Your task to perform on an android device: toggle javascript in the chrome app Image 0: 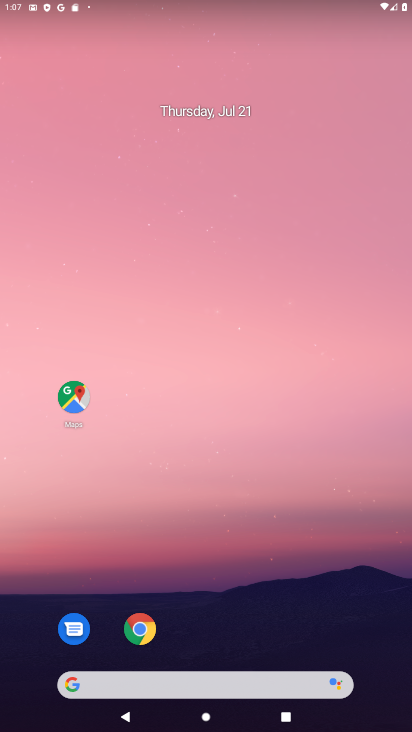
Step 0: click (145, 630)
Your task to perform on an android device: toggle javascript in the chrome app Image 1: 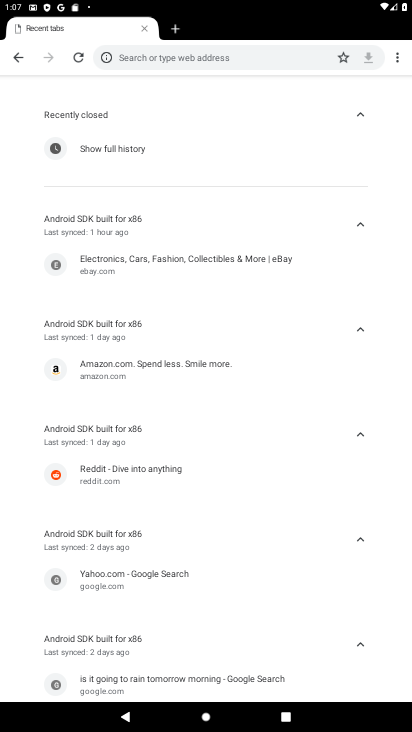
Step 1: click (393, 60)
Your task to perform on an android device: toggle javascript in the chrome app Image 2: 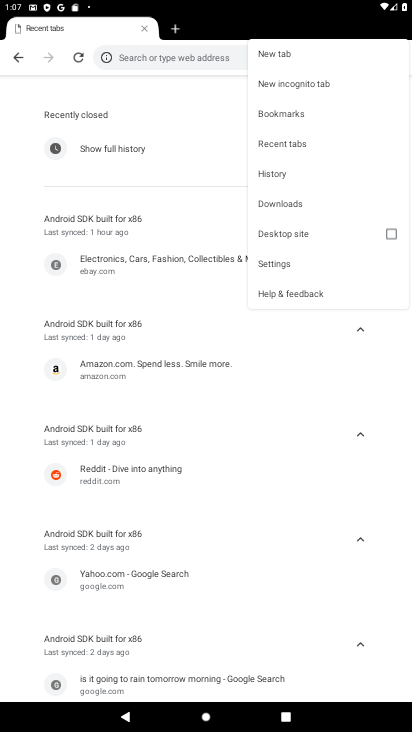
Step 2: click (284, 257)
Your task to perform on an android device: toggle javascript in the chrome app Image 3: 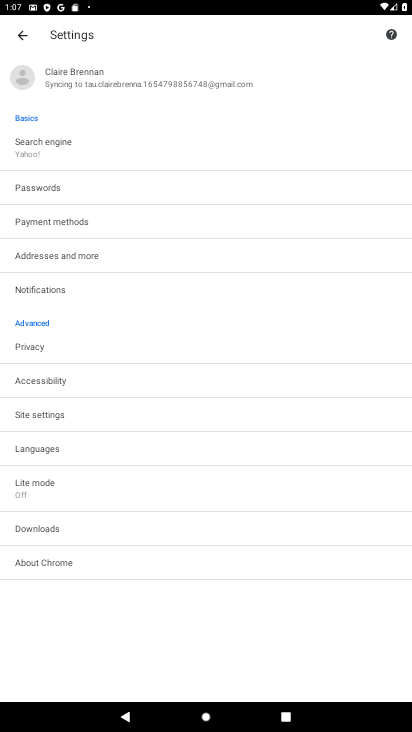
Step 3: click (46, 419)
Your task to perform on an android device: toggle javascript in the chrome app Image 4: 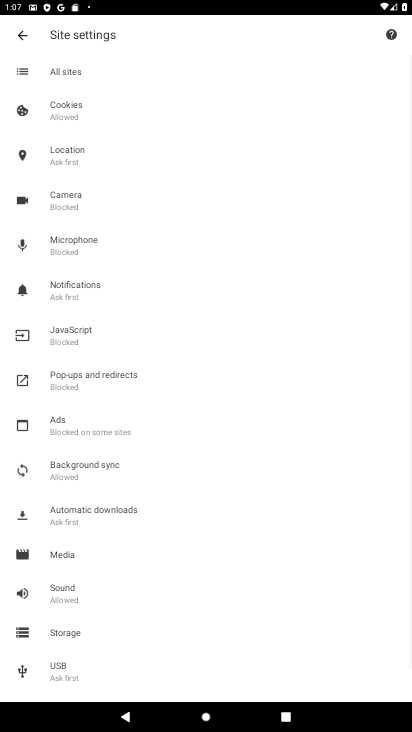
Step 4: click (101, 341)
Your task to perform on an android device: toggle javascript in the chrome app Image 5: 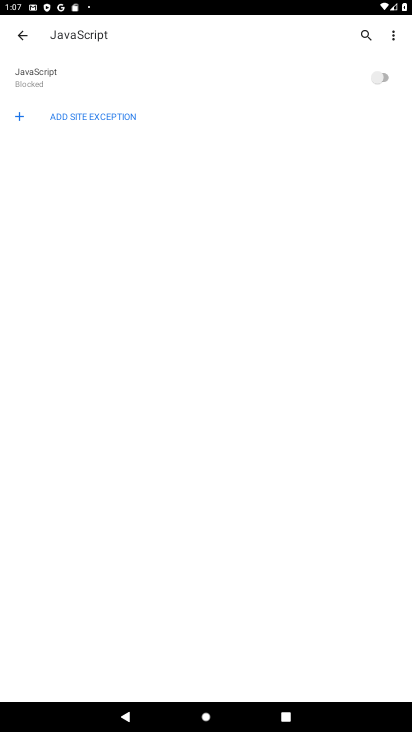
Step 5: click (383, 78)
Your task to perform on an android device: toggle javascript in the chrome app Image 6: 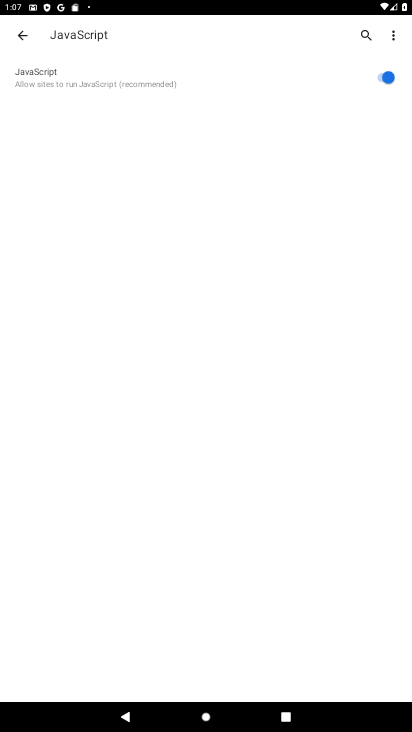
Step 6: task complete